Your task to perform on an android device: What's the weather going to be tomorrow? Image 0: 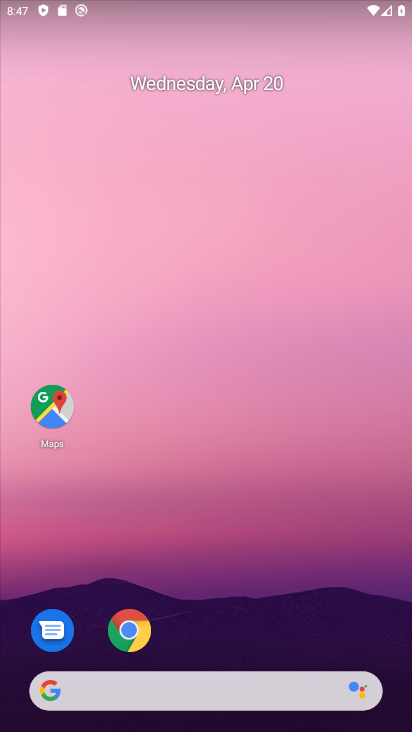
Step 0: drag from (203, 544) to (187, 127)
Your task to perform on an android device: What's the weather going to be tomorrow? Image 1: 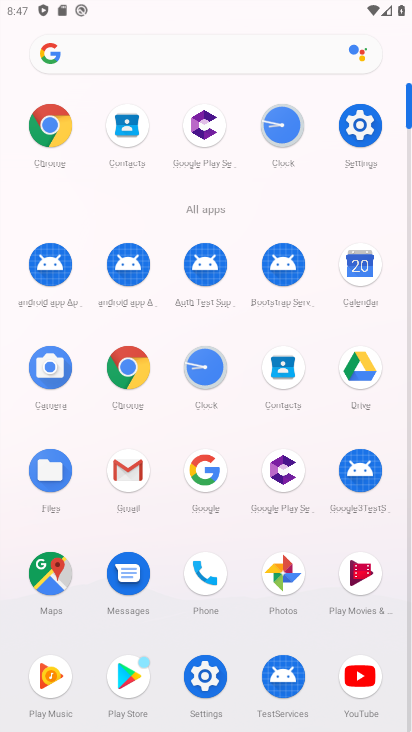
Step 1: click (186, 467)
Your task to perform on an android device: What's the weather going to be tomorrow? Image 2: 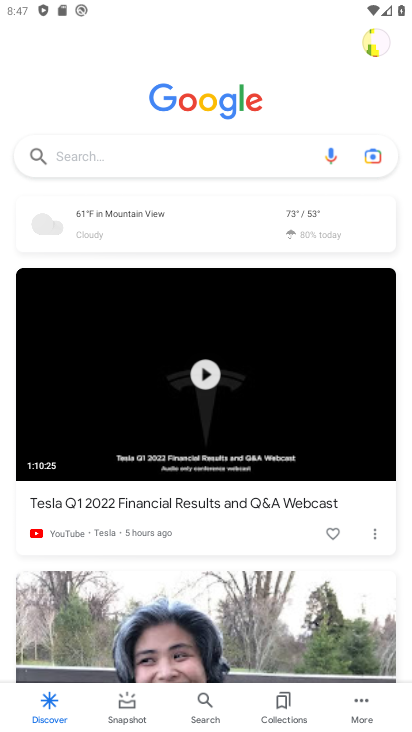
Step 2: click (100, 228)
Your task to perform on an android device: What's the weather going to be tomorrow? Image 3: 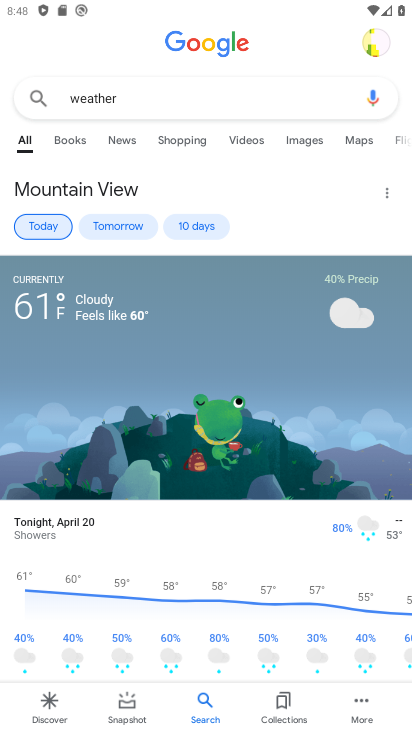
Step 3: click (109, 211)
Your task to perform on an android device: What's the weather going to be tomorrow? Image 4: 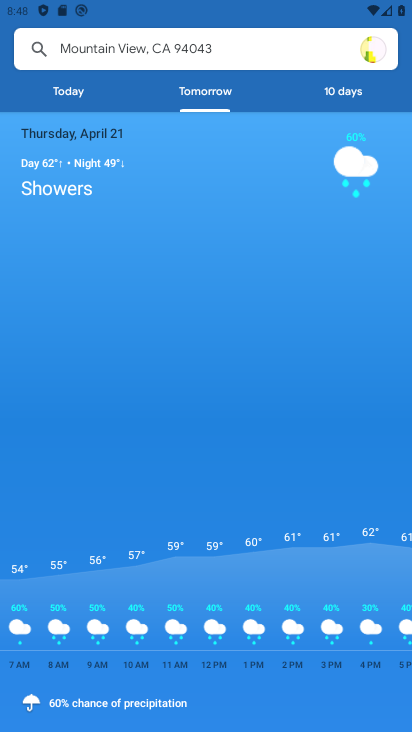
Step 4: task complete